Your task to perform on an android device: Set the phone to "Do not disturb". Image 0: 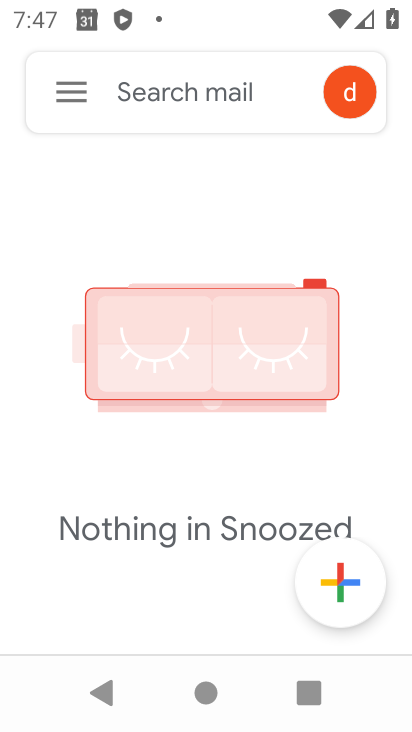
Step 0: press home button
Your task to perform on an android device: Set the phone to "Do not disturb". Image 1: 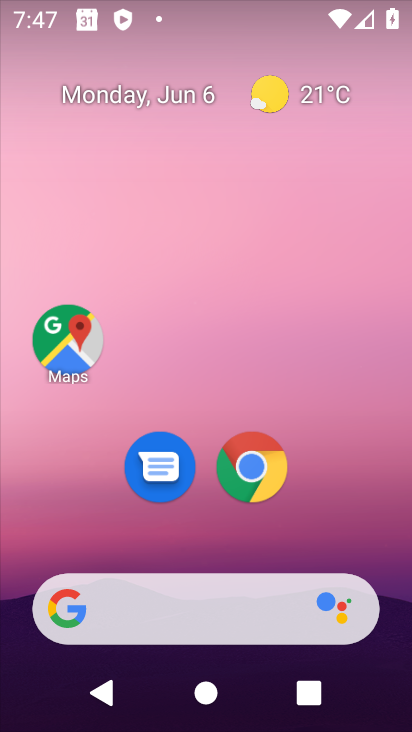
Step 1: drag from (366, 529) to (391, 159)
Your task to perform on an android device: Set the phone to "Do not disturb". Image 2: 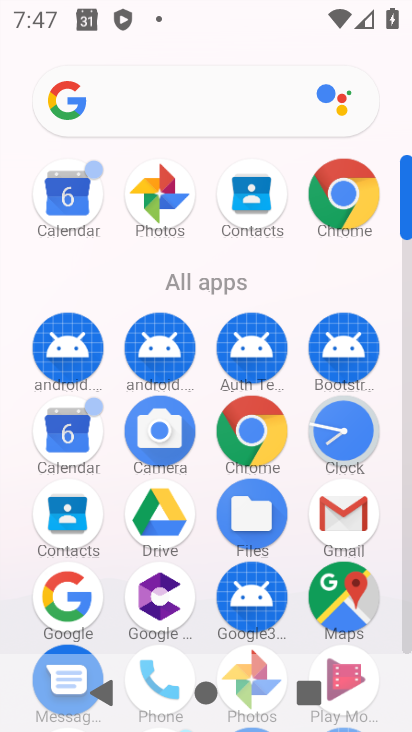
Step 2: drag from (384, 537) to (397, 259)
Your task to perform on an android device: Set the phone to "Do not disturb". Image 3: 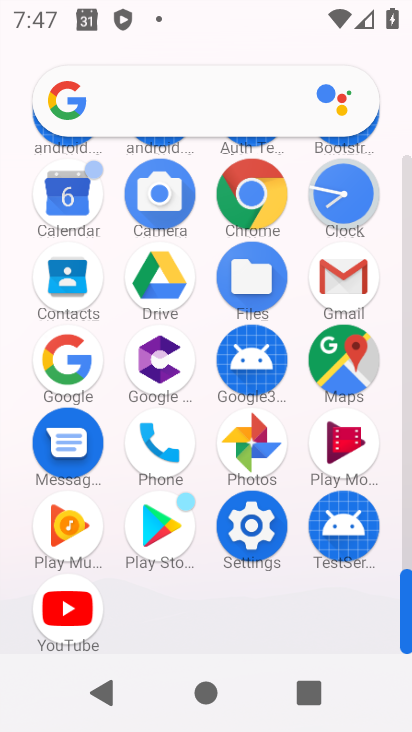
Step 3: click (256, 536)
Your task to perform on an android device: Set the phone to "Do not disturb". Image 4: 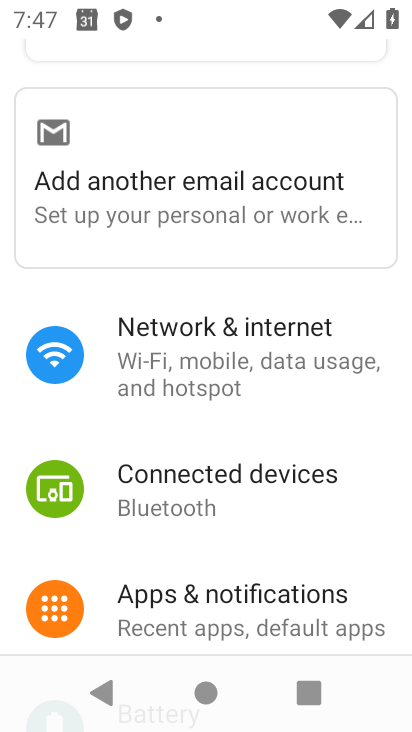
Step 4: drag from (375, 521) to (386, 355)
Your task to perform on an android device: Set the phone to "Do not disturb". Image 5: 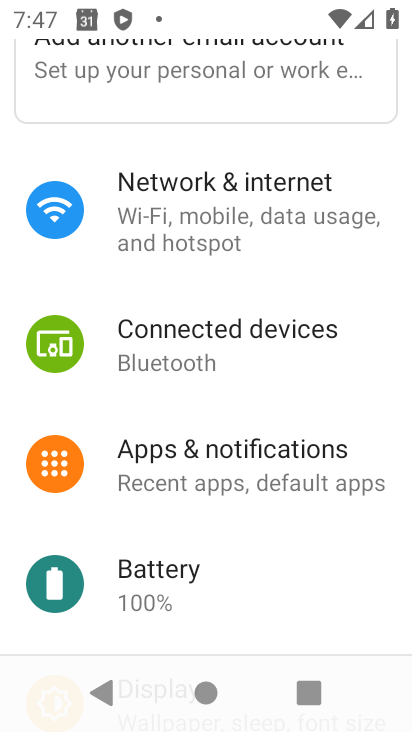
Step 5: drag from (362, 559) to (375, 414)
Your task to perform on an android device: Set the phone to "Do not disturb". Image 6: 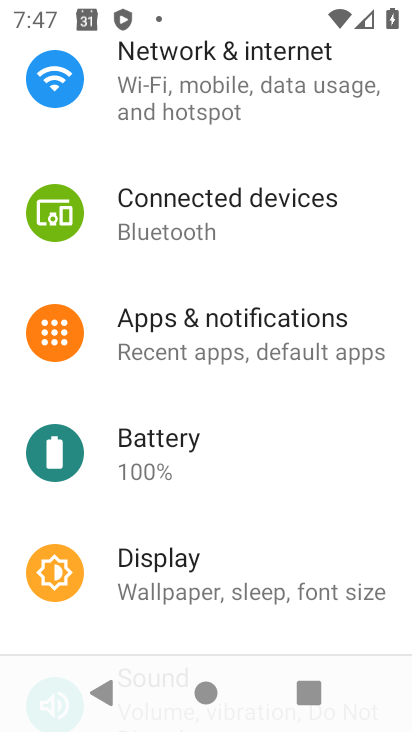
Step 6: drag from (359, 507) to (357, 359)
Your task to perform on an android device: Set the phone to "Do not disturb". Image 7: 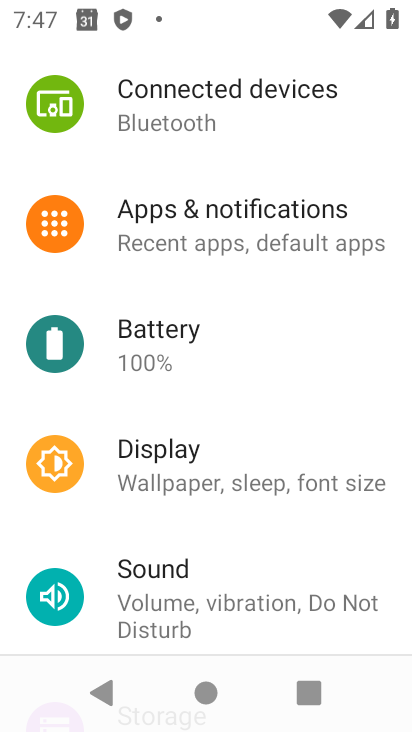
Step 7: drag from (360, 526) to (380, 382)
Your task to perform on an android device: Set the phone to "Do not disturb". Image 8: 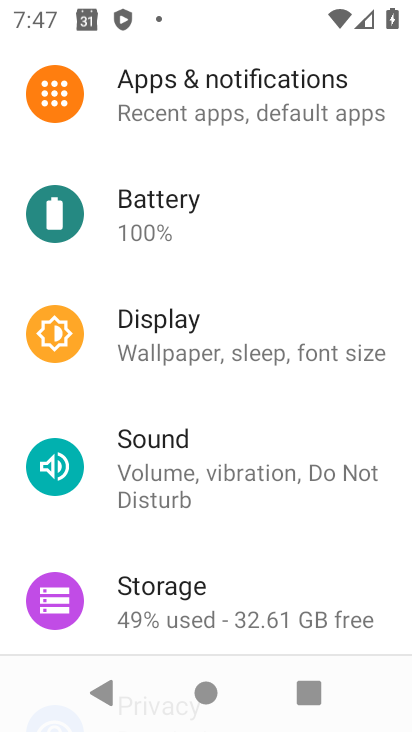
Step 8: drag from (381, 528) to (362, 250)
Your task to perform on an android device: Set the phone to "Do not disturb". Image 9: 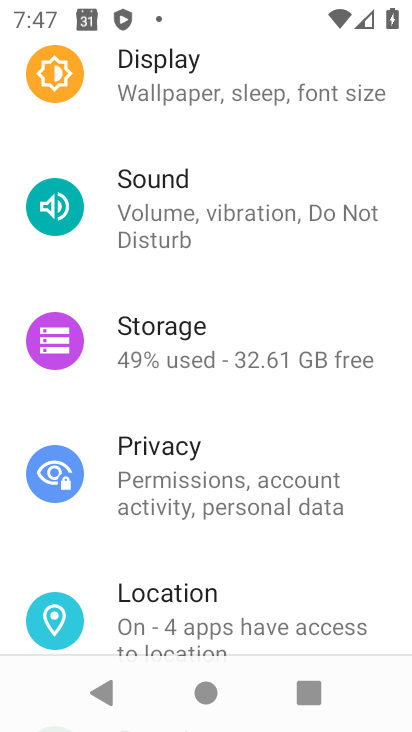
Step 9: click (284, 238)
Your task to perform on an android device: Set the phone to "Do not disturb". Image 10: 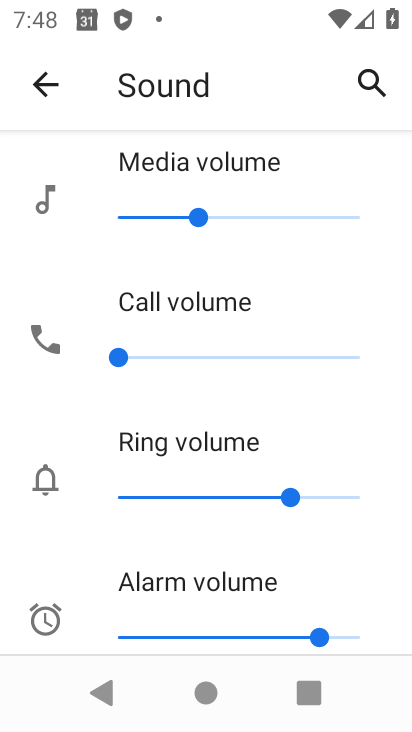
Step 10: drag from (350, 441) to (373, 291)
Your task to perform on an android device: Set the phone to "Do not disturb". Image 11: 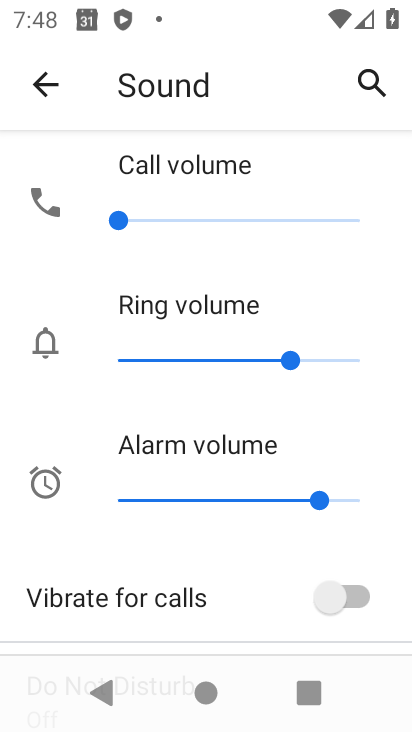
Step 11: drag from (361, 415) to (357, 153)
Your task to perform on an android device: Set the phone to "Do not disturb". Image 12: 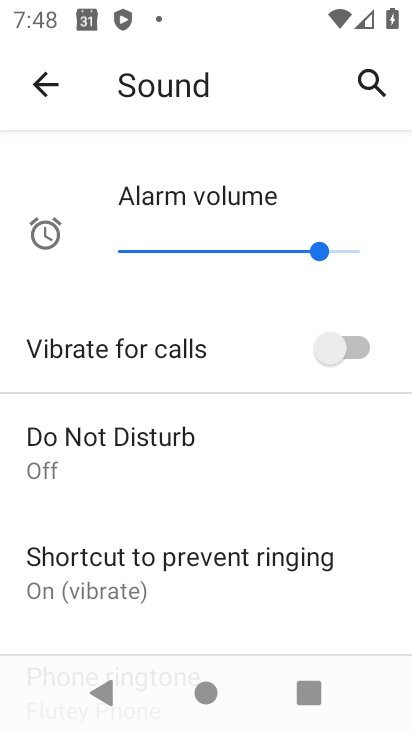
Step 12: click (135, 463)
Your task to perform on an android device: Set the phone to "Do not disturb". Image 13: 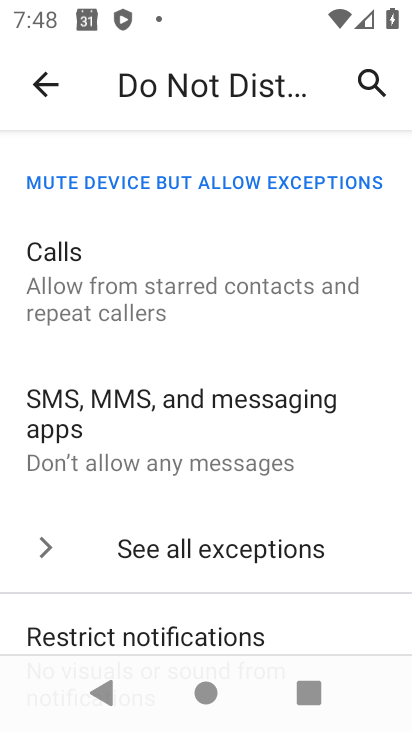
Step 13: drag from (286, 569) to (301, 302)
Your task to perform on an android device: Set the phone to "Do not disturb". Image 14: 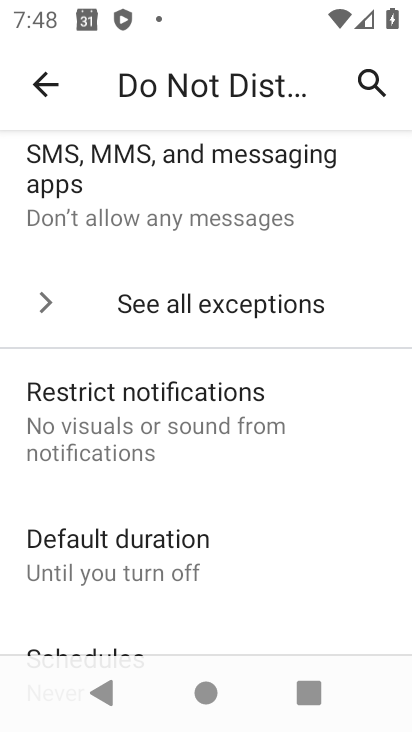
Step 14: drag from (317, 526) to (313, 285)
Your task to perform on an android device: Set the phone to "Do not disturb". Image 15: 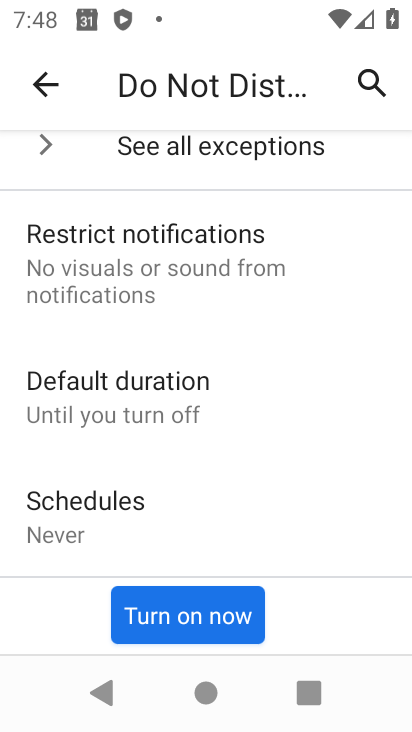
Step 15: click (199, 609)
Your task to perform on an android device: Set the phone to "Do not disturb". Image 16: 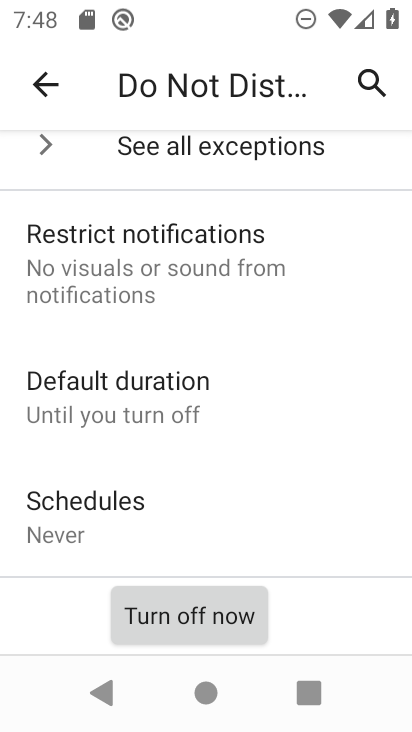
Step 16: task complete